Your task to perform on an android device: Toggle the flashlight Image 0: 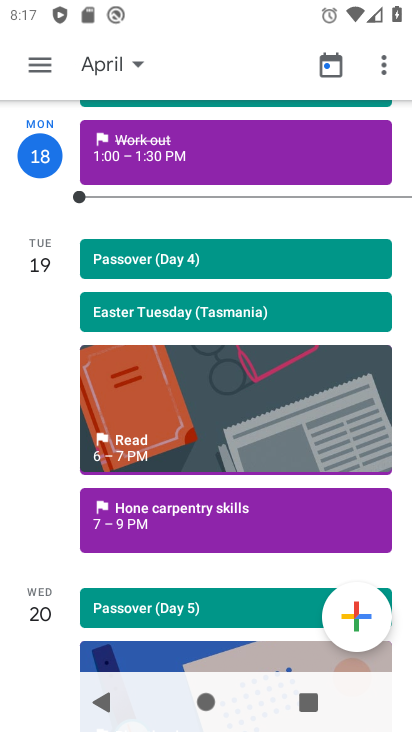
Step 0: press back button
Your task to perform on an android device: Toggle the flashlight Image 1: 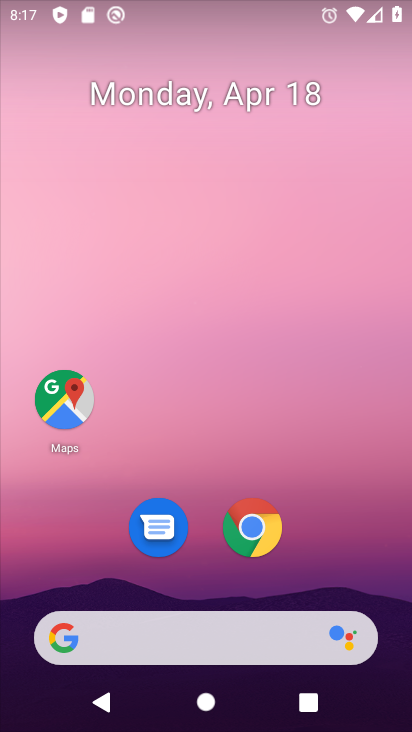
Step 1: task complete